Your task to perform on an android device: Open the calendar app, open the side menu, and click the "Day" option Image 0: 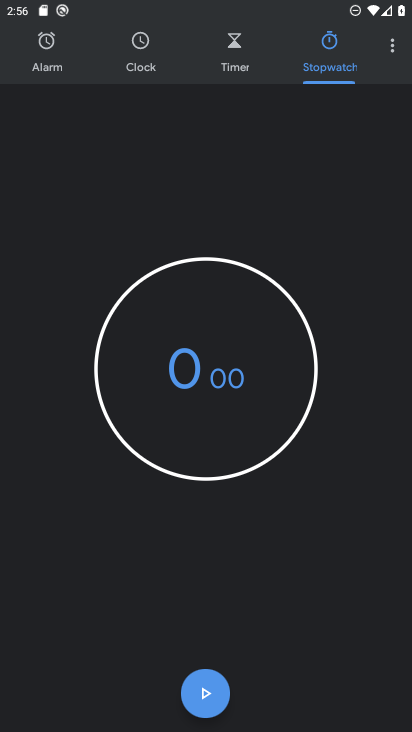
Step 0: press home button
Your task to perform on an android device: Open the calendar app, open the side menu, and click the "Day" option Image 1: 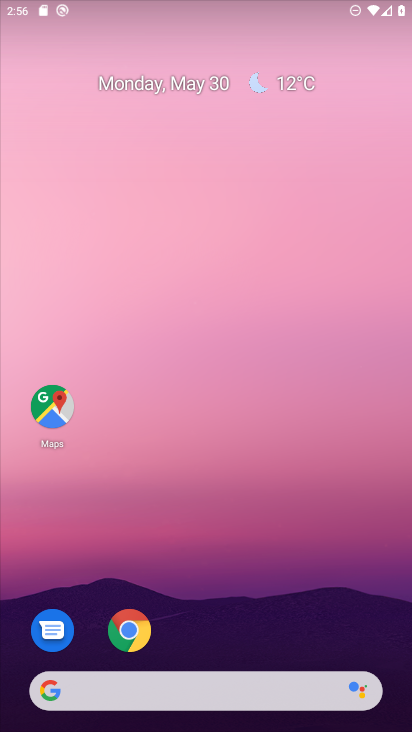
Step 1: drag from (216, 686) to (256, 86)
Your task to perform on an android device: Open the calendar app, open the side menu, and click the "Day" option Image 2: 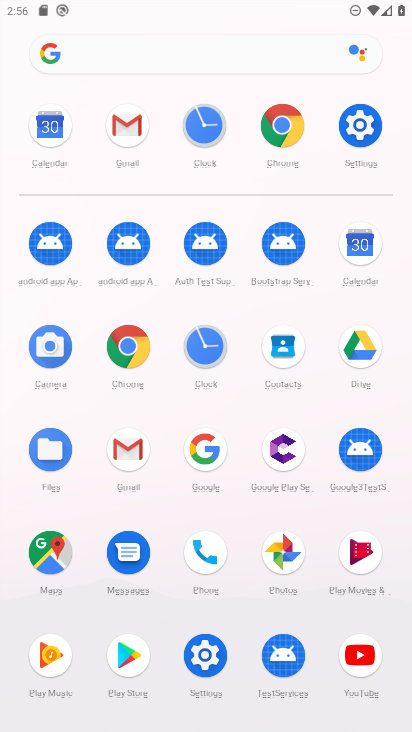
Step 2: click (356, 237)
Your task to perform on an android device: Open the calendar app, open the side menu, and click the "Day" option Image 3: 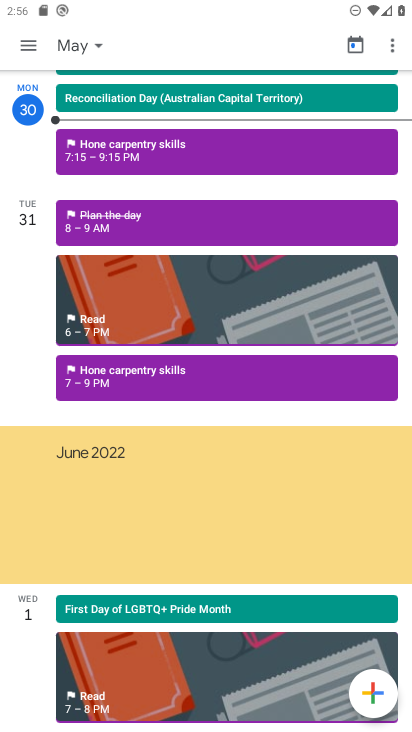
Step 3: click (27, 59)
Your task to perform on an android device: Open the calendar app, open the side menu, and click the "Day" option Image 4: 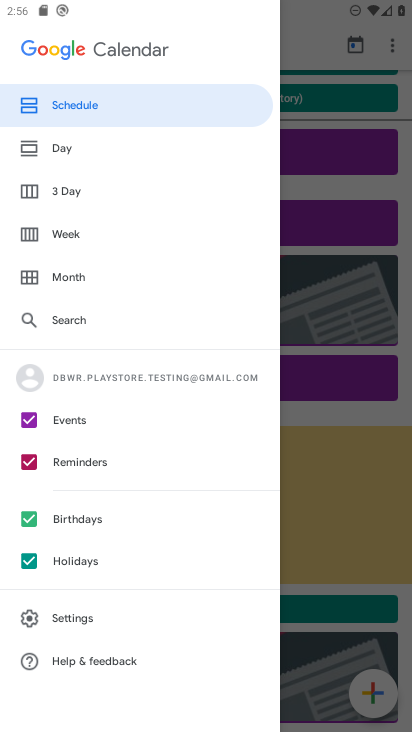
Step 4: click (65, 147)
Your task to perform on an android device: Open the calendar app, open the side menu, and click the "Day" option Image 5: 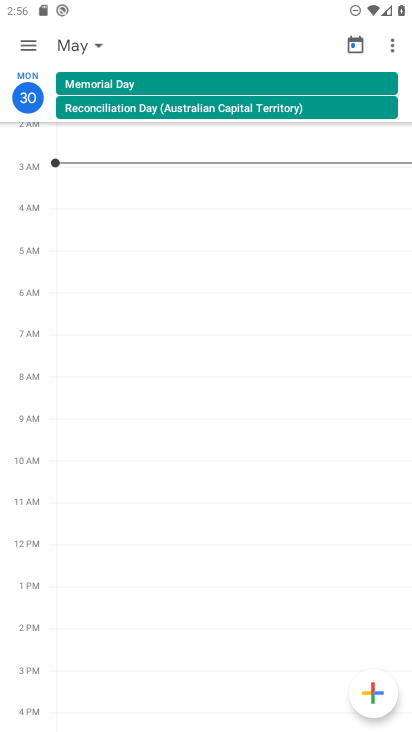
Step 5: task complete